Your task to perform on an android device: set the stopwatch Image 0: 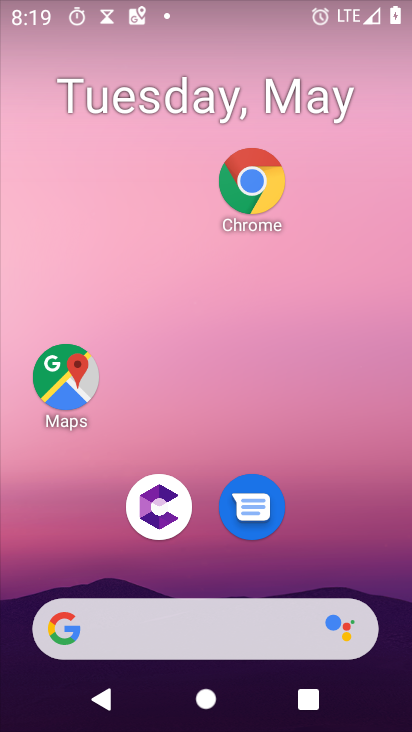
Step 0: drag from (323, 565) to (285, 61)
Your task to perform on an android device: set the stopwatch Image 1: 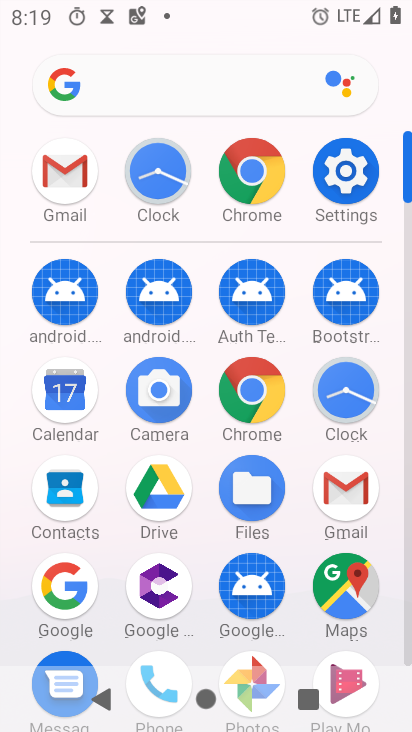
Step 1: click (338, 402)
Your task to perform on an android device: set the stopwatch Image 2: 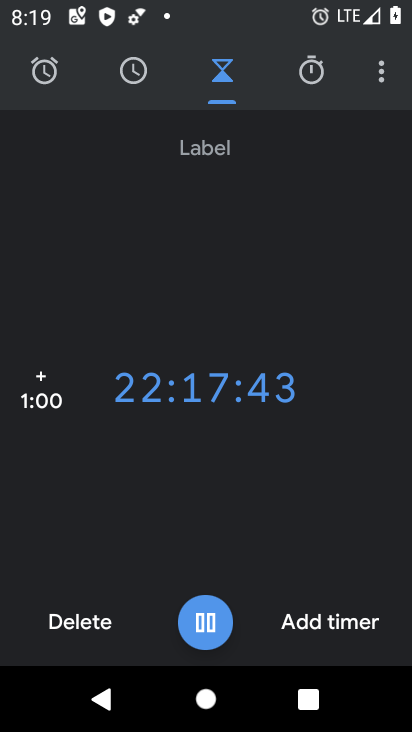
Step 2: click (301, 80)
Your task to perform on an android device: set the stopwatch Image 3: 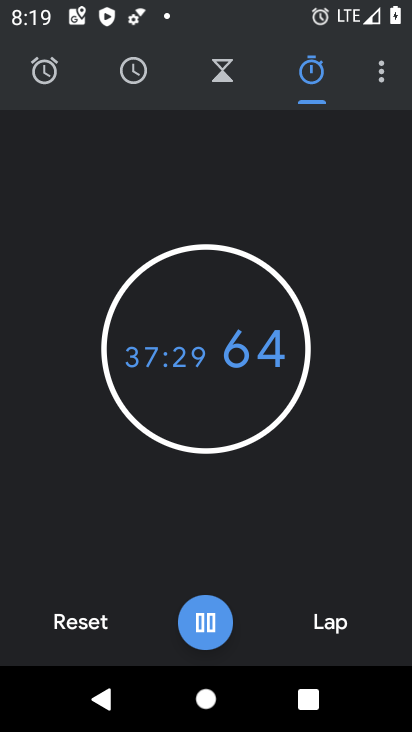
Step 3: click (83, 611)
Your task to perform on an android device: set the stopwatch Image 4: 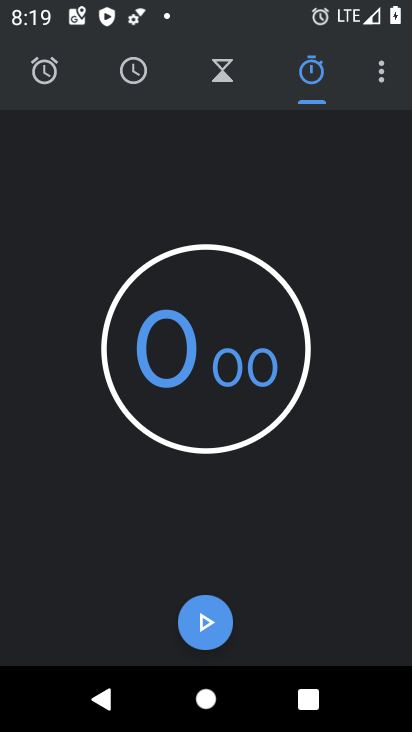
Step 4: click (196, 619)
Your task to perform on an android device: set the stopwatch Image 5: 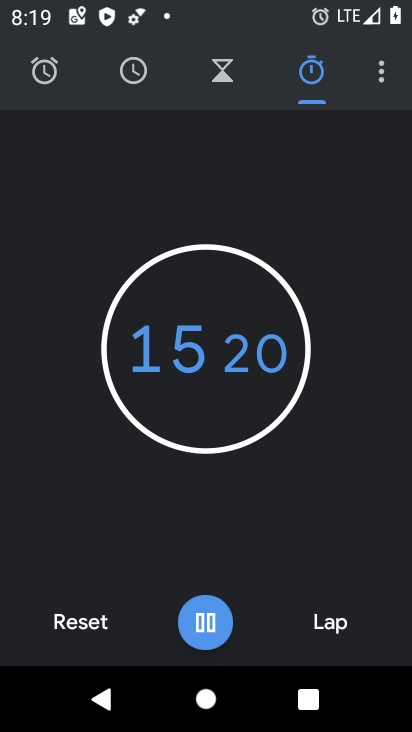
Step 5: task complete